Your task to perform on an android device: turn off translation in the chrome app Image 0: 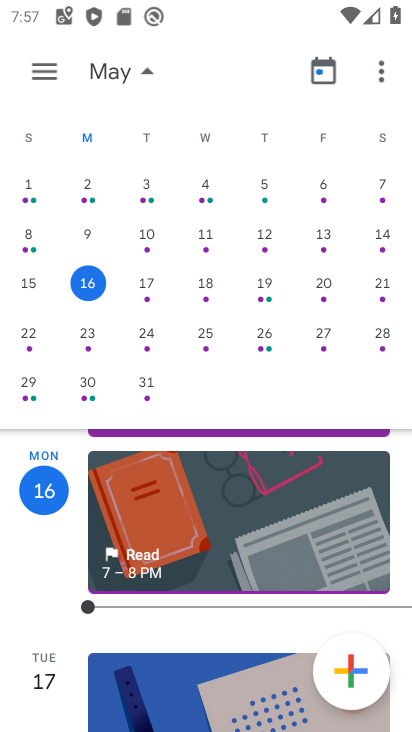
Step 0: press home button
Your task to perform on an android device: turn off translation in the chrome app Image 1: 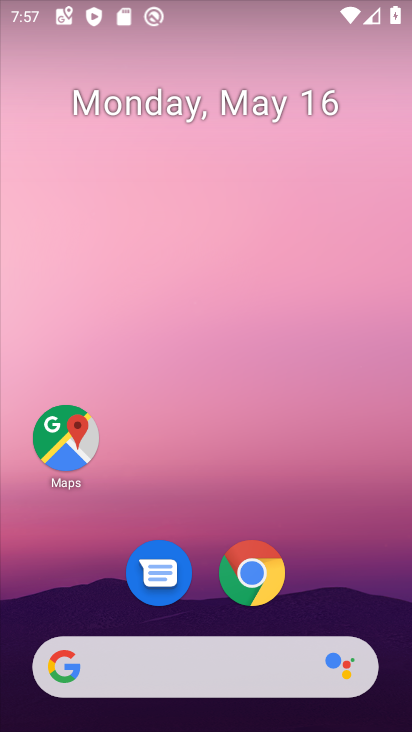
Step 1: click (253, 551)
Your task to perform on an android device: turn off translation in the chrome app Image 2: 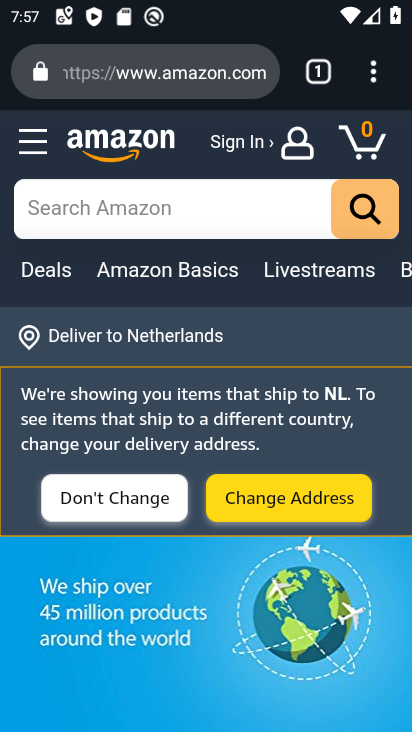
Step 2: drag from (362, 70) to (105, 578)
Your task to perform on an android device: turn off translation in the chrome app Image 3: 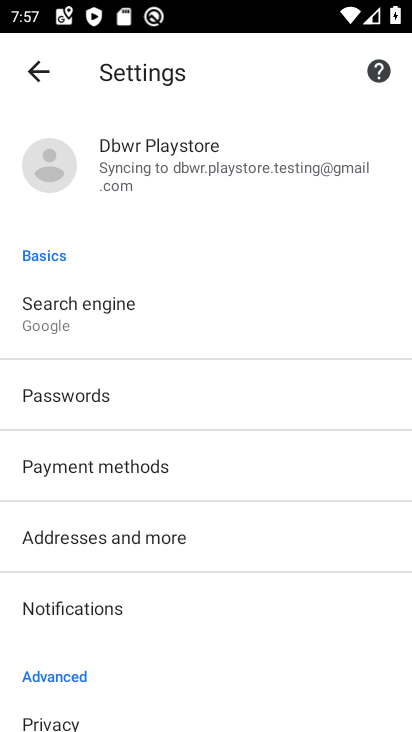
Step 3: drag from (135, 639) to (161, 228)
Your task to perform on an android device: turn off translation in the chrome app Image 4: 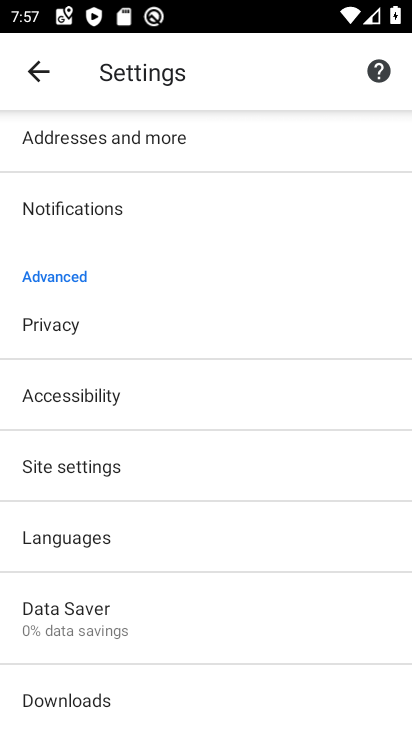
Step 4: drag from (155, 642) to (159, 350)
Your task to perform on an android device: turn off translation in the chrome app Image 5: 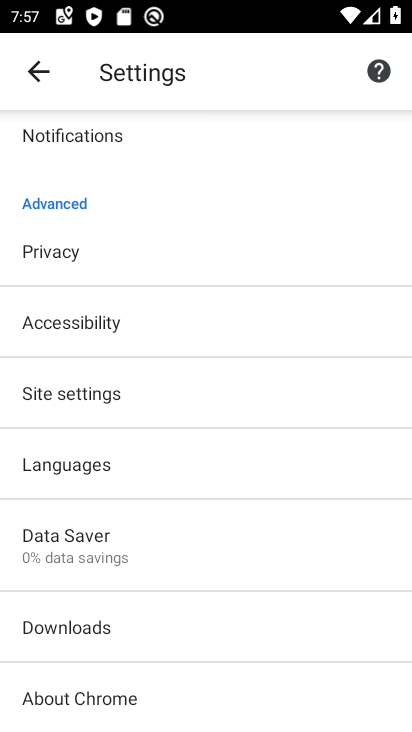
Step 5: click (90, 460)
Your task to perform on an android device: turn off translation in the chrome app Image 6: 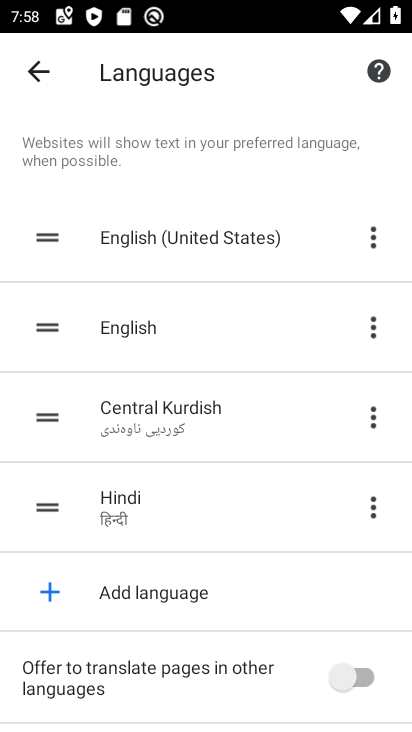
Step 6: task complete